Your task to perform on an android device: change notifications settings Image 0: 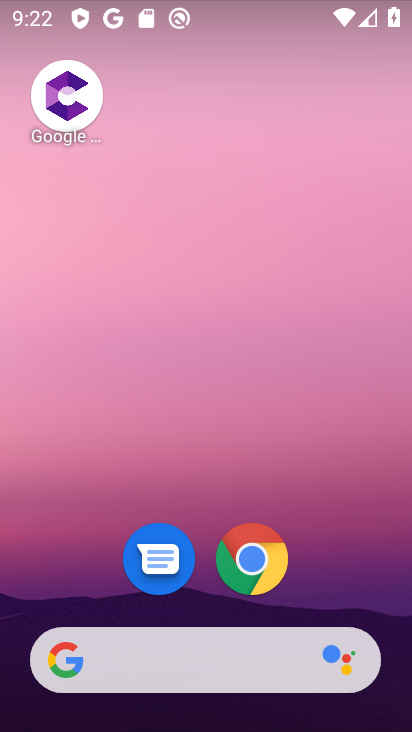
Step 0: drag from (334, 567) to (266, 107)
Your task to perform on an android device: change notifications settings Image 1: 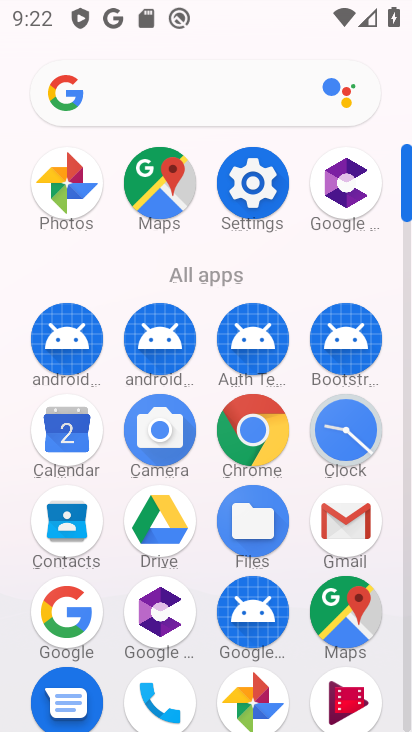
Step 1: click (253, 181)
Your task to perform on an android device: change notifications settings Image 2: 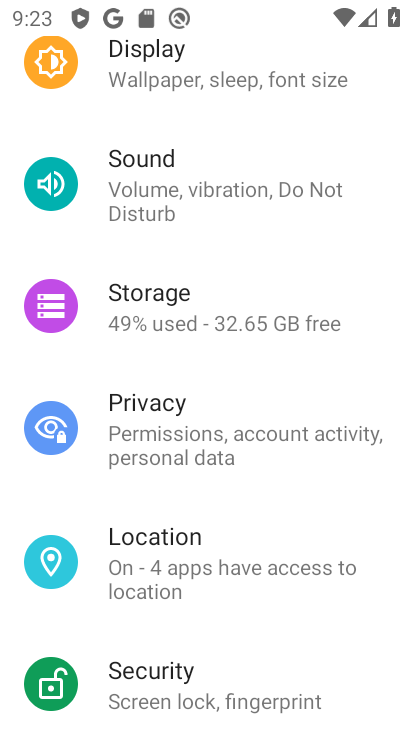
Step 2: drag from (233, 248) to (229, 375)
Your task to perform on an android device: change notifications settings Image 3: 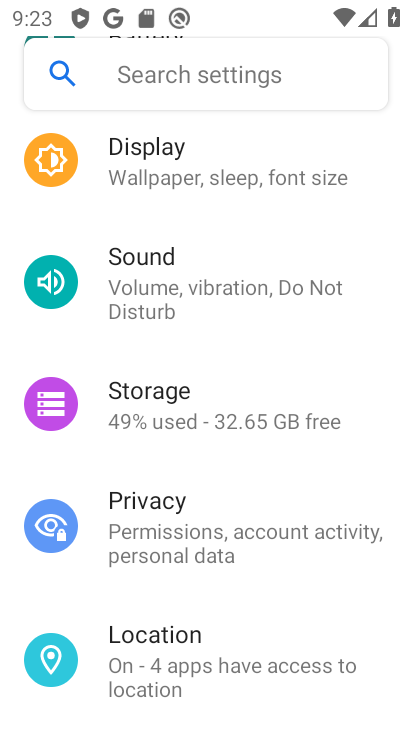
Step 3: drag from (234, 238) to (237, 406)
Your task to perform on an android device: change notifications settings Image 4: 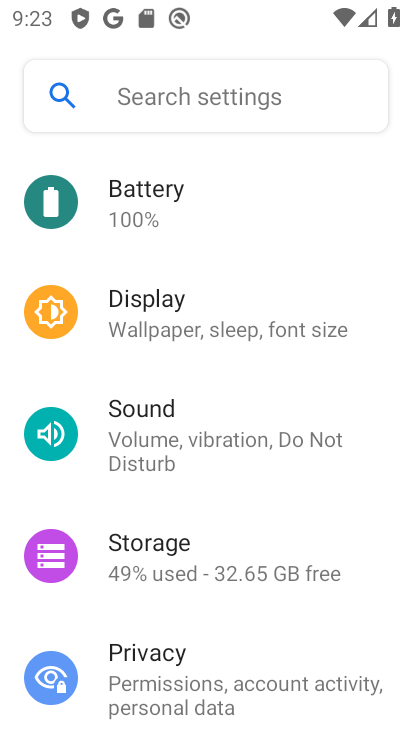
Step 4: drag from (243, 245) to (239, 376)
Your task to perform on an android device: change notifications settings Image 5: 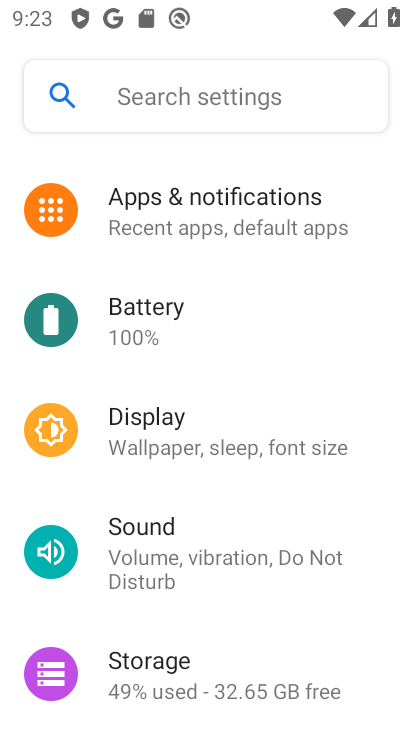
Step 5: click (245, 221)
Your task to perform on an android device: change notifications settings Image 6: 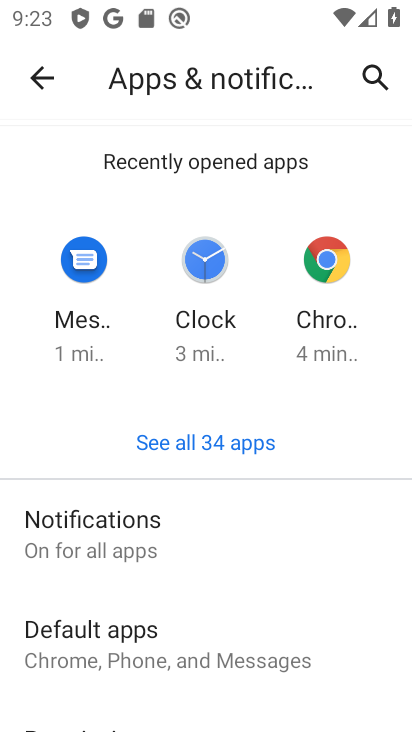
Step 6: click (138, 535)
Your task to perform on an android device: change notifications settings Image 7: 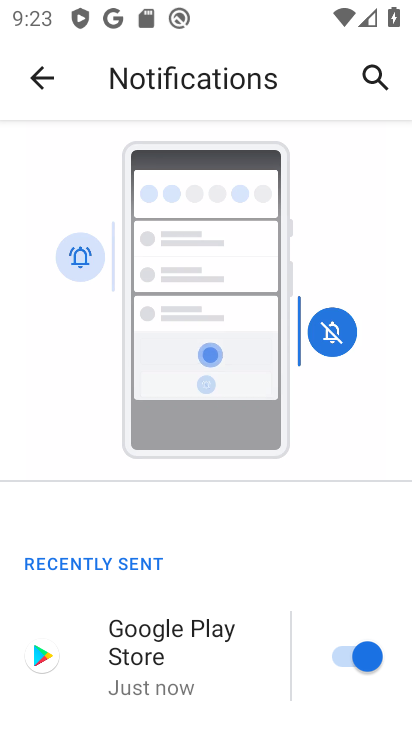
Step 7: drag from (238, 573) to (230, 394)
Your task to perform on an android device: change notifications settings Image 8: 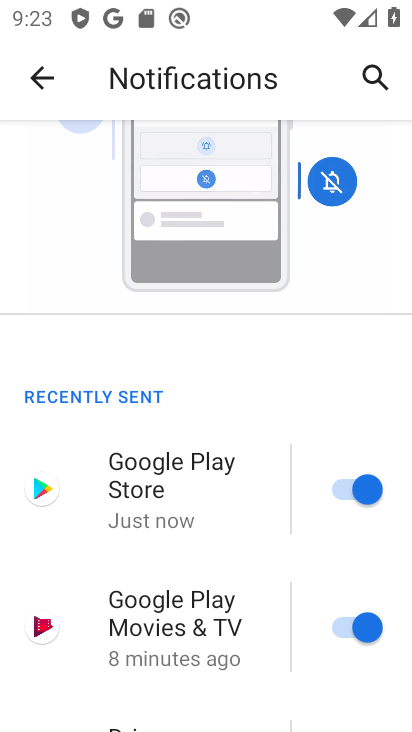
Step 8: drag from (216, 551) to (266, 293)
Your task to perform on an android device: change notifications settings Image 9: 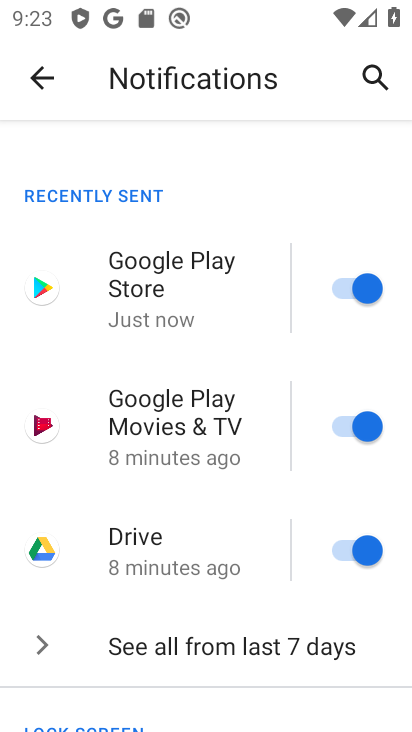
Step 9: drag from (170, 516) to (237, 314)
Your task to perform on an android device: change notifications settings Image 10: 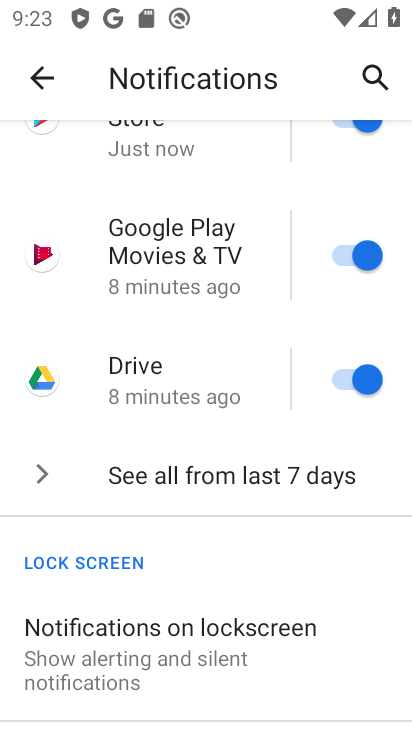
Step 10: drag from (200, 578) to (276, 377)
Your task to perform on an android device: change notifications settings Image 11: 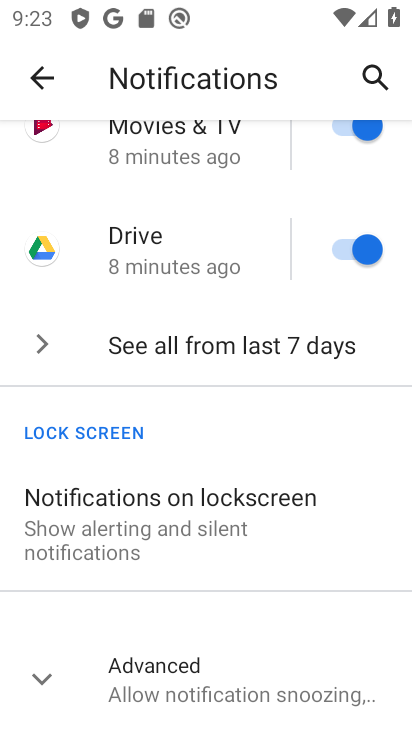
Step 11: click (224, 687)
Your task to perform on an android device: change notifications settings Image 12: 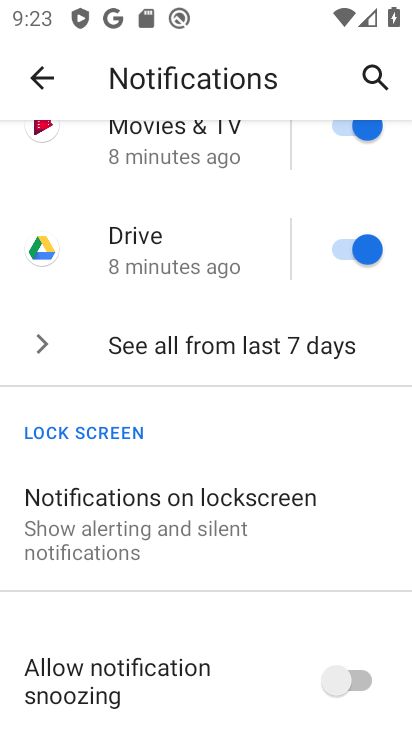
Step 12: drag from (139, 624) to (199, 477)
Your task to perform on an android device: change notifications settings Image 13: 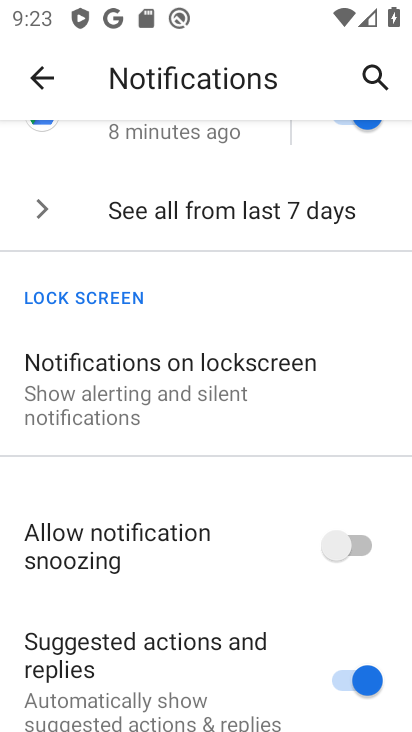
Step 13: drag from (160, 604) to (236, 427)
Your task to perform on an android device: change notifications settings Image 14: 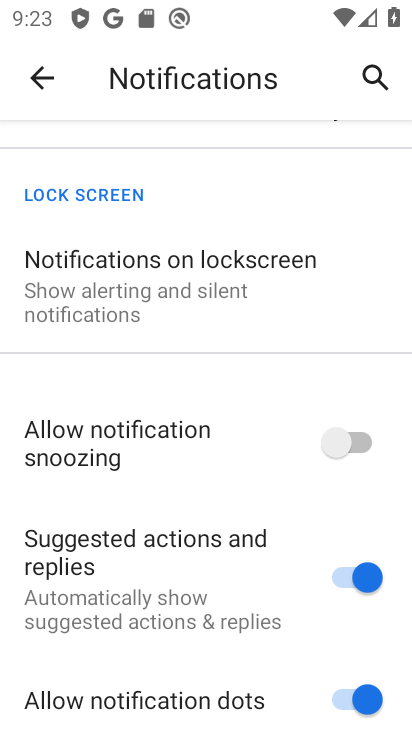
Step 14: drag from (144, 641) to (225, 463)
Your task to perform on an android device: change notifications settings Image 15: 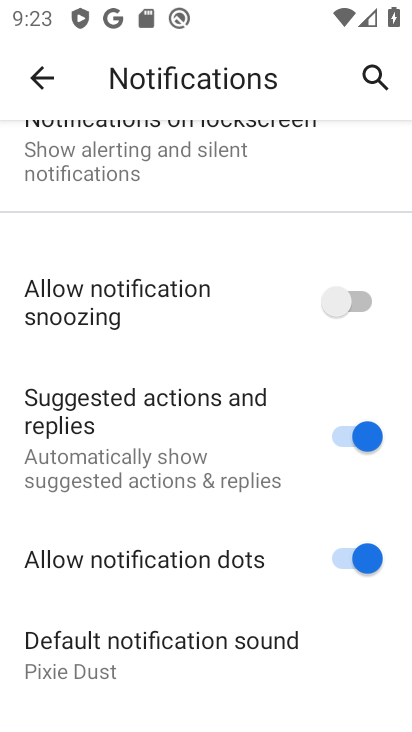
Step 15: click (367, 568)
Your task to perform on an android device: change notifications settings Image 16: 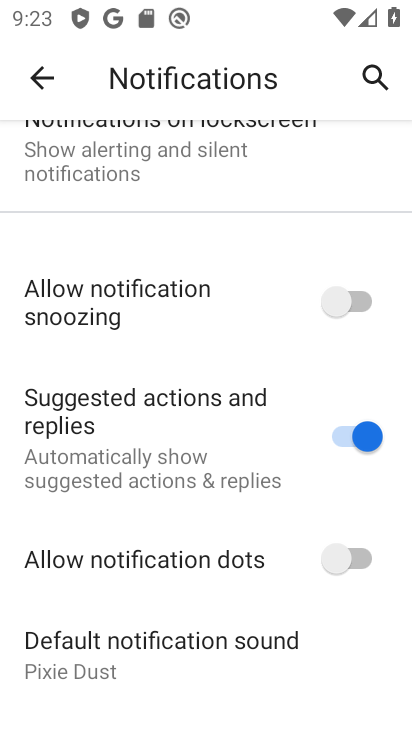
Step 16: task complete